Your task to perform on an android device: turn notification dots off Image 0: 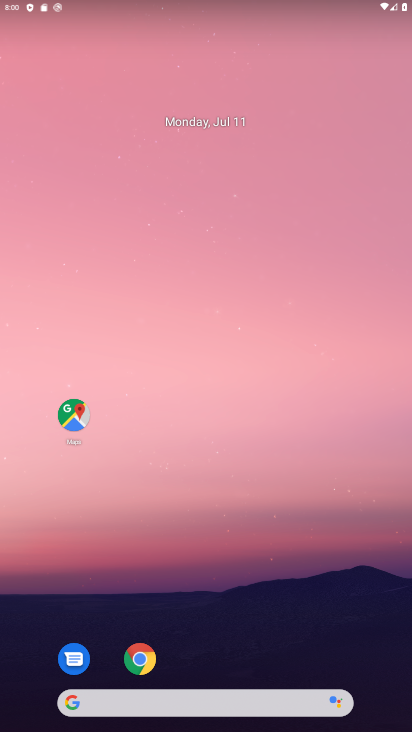
Step 0: drag from (11, 705) to (219, 106)
Your task to perform on an android device: turn notification dots off Image 1: 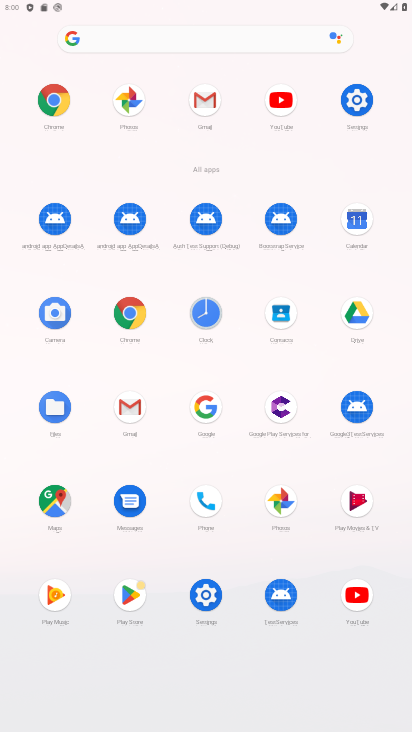
Step 1: click (203, 591)
Your task to perform on an android device: turn notification dots off Image 2: 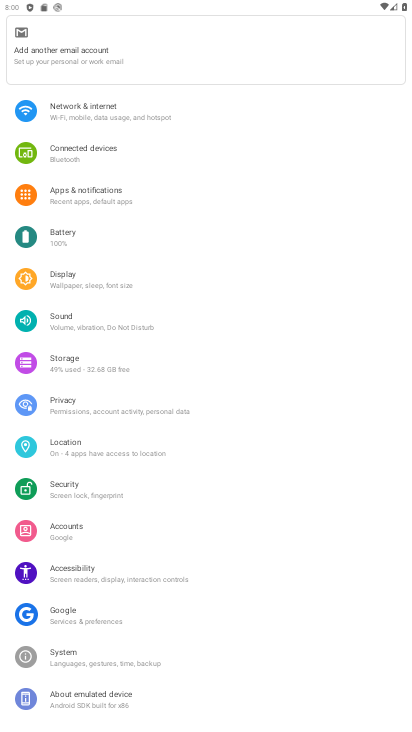
Step 2: click (94, 198)
Your task to perform on an android device: turn notification dots off Image 3: 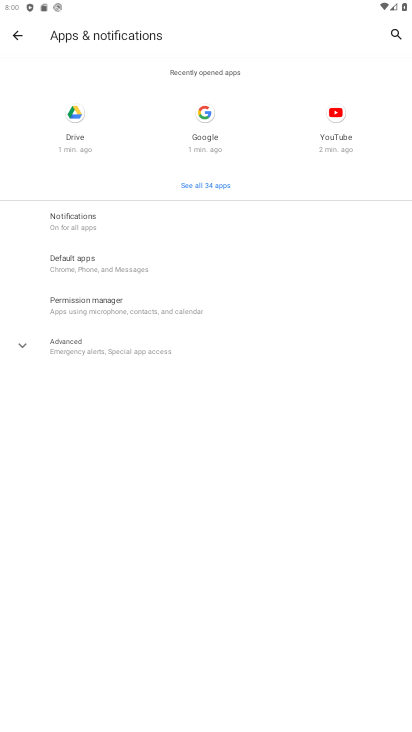
Step 3: click (71, 342)
Your task to perform on an android device: turn notification dots off Image 4: 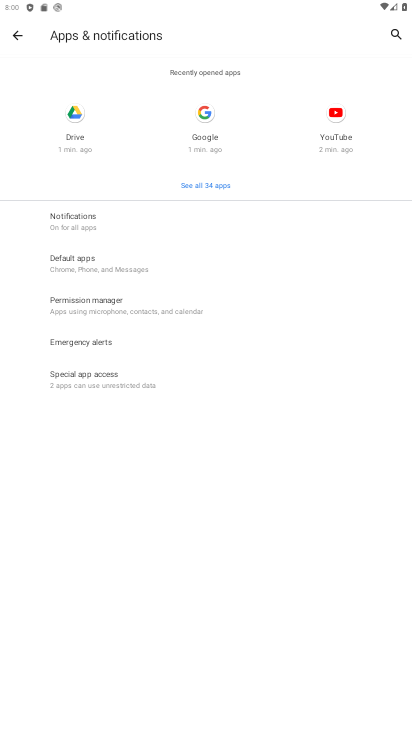
Step 4: click (104, 227)
Your task to perform on an android device: turn notification dots off Image 5: 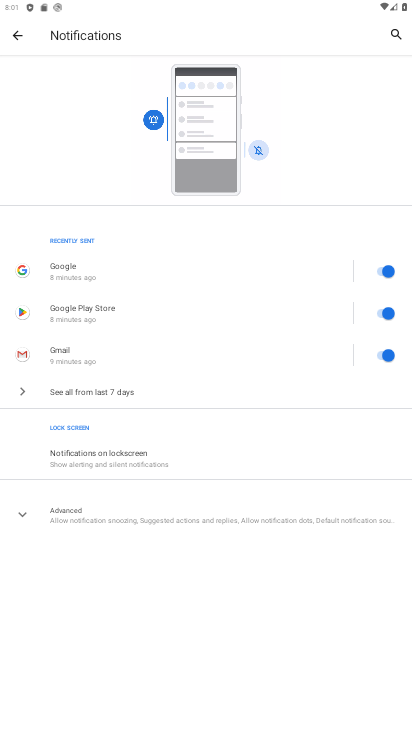
Step 5: click (102, 510)
Your task to perform on an android device: turn notification dots off Image 6: 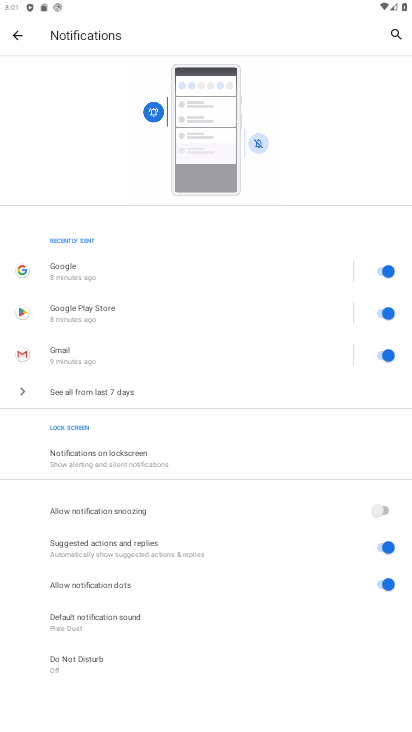
Step 6: click (386, 583)
Your task to perform on an android device: turn notification dots off Image 7: 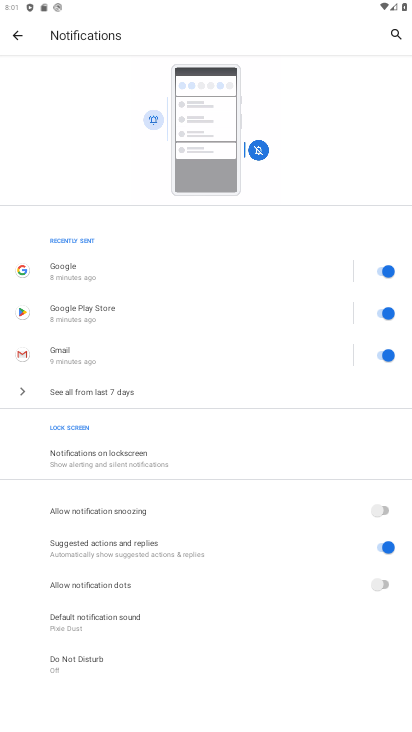
Step 7: task complete